Your task to perform on an android device: Search for the best selling coffee table on Crate & Barrel Image 0: 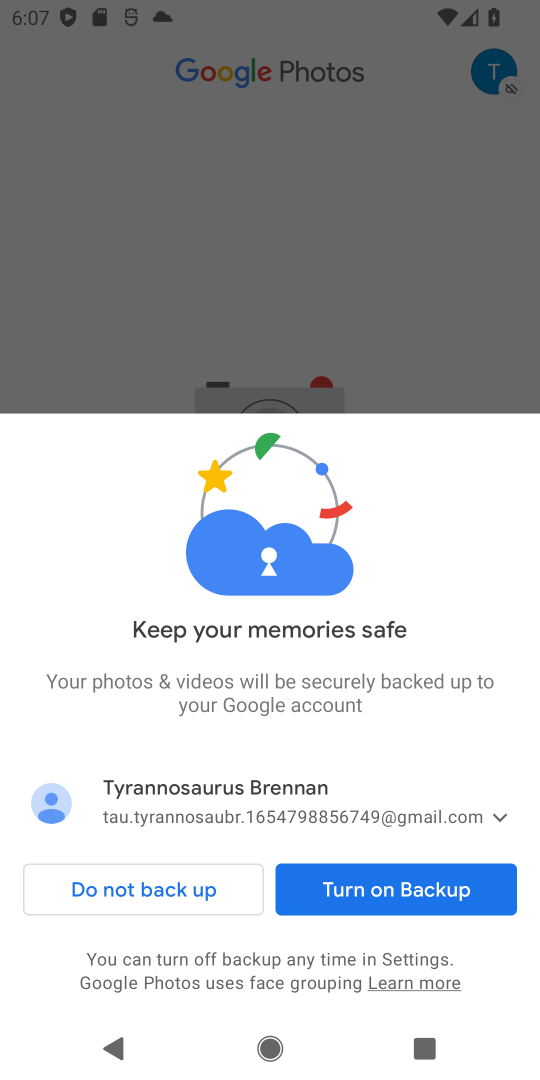
Step 0: press home button
Your task to perform on an android device: Search for the best selling coffee table on Crate & Barrel Image 1: 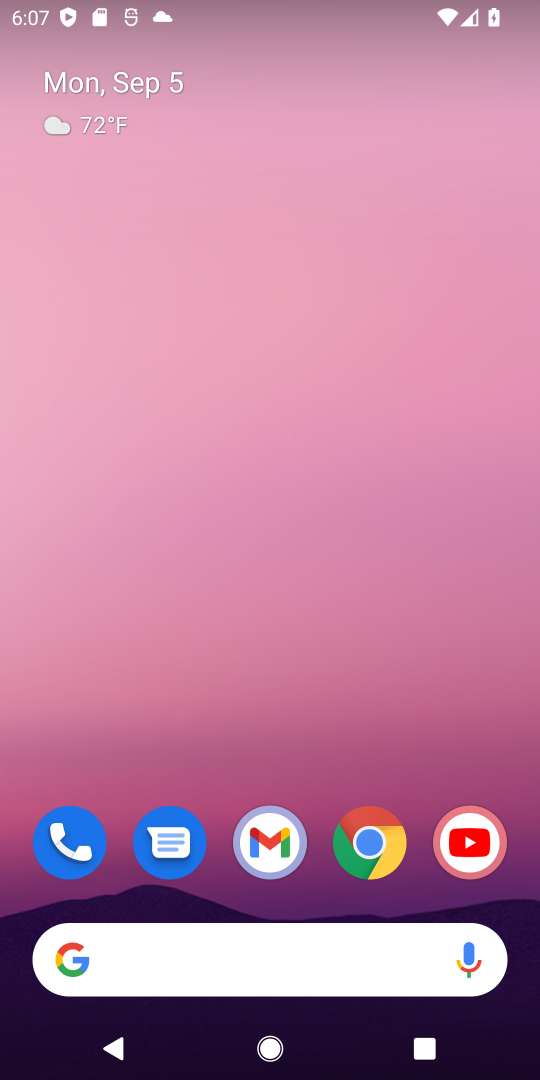
Step 1: click (365, 842)
Your task to perform on an android device: Search for the best selling coffee table on Crate & Barrel Image 2: 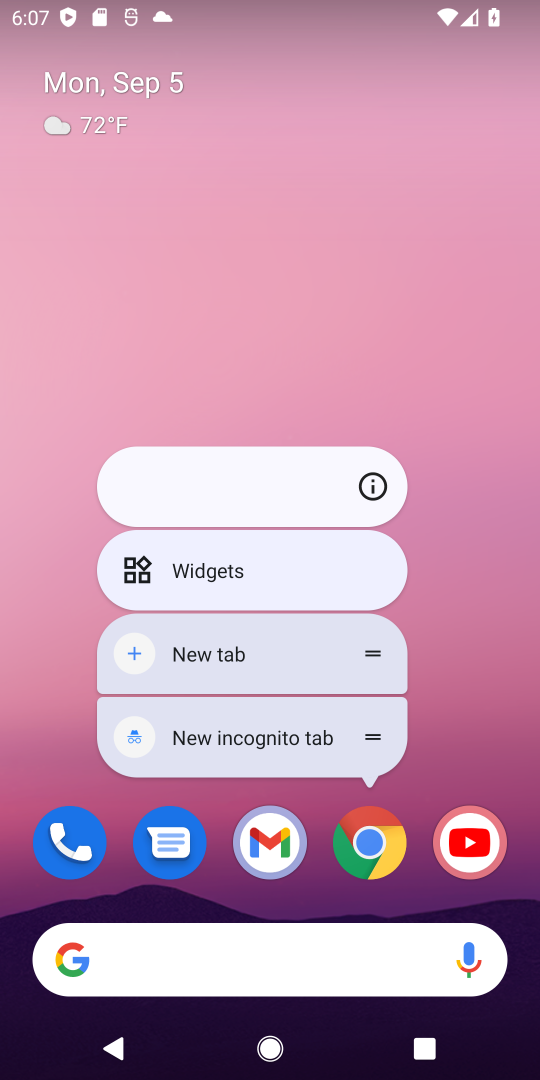
Step 2: click (369, 847)
Your task to perform on an android device: Search for the best selling coffee table on Crate & Barrel Image 3: 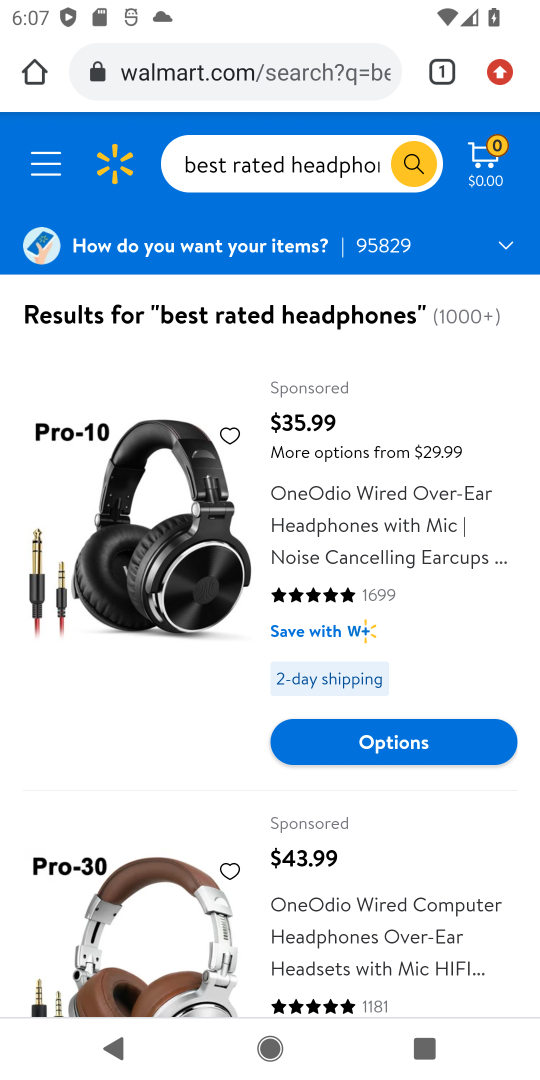
Step 3: click (363, 66)
Your task to perform on an android device: Search for the best selling coffee table on Crate & Barrel Image 4: 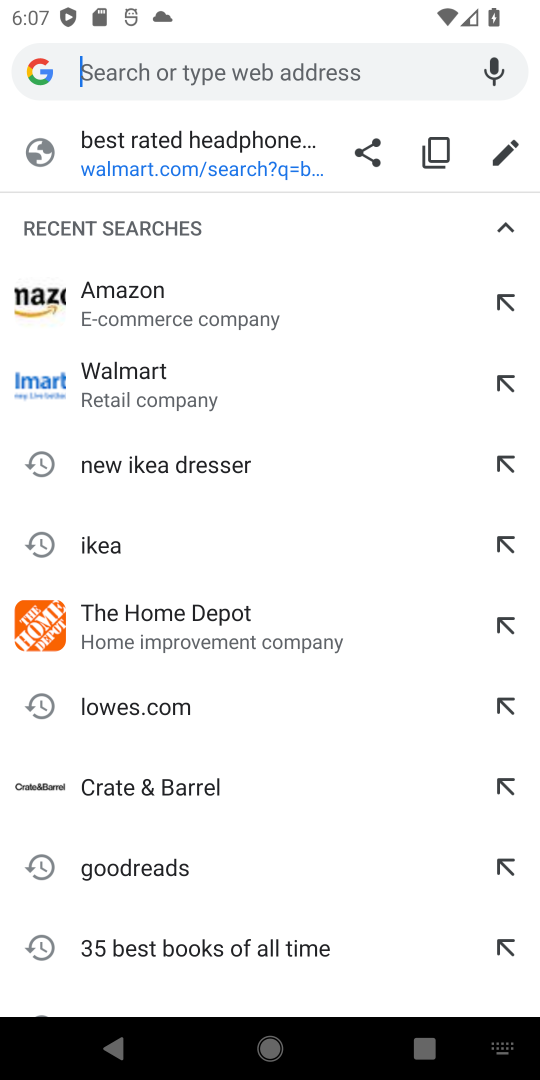
Step 4: type "Crate & Barrel"
Your task to perform on an android device: Search for the best selling coffee table on Crate & Barrel Image 5: 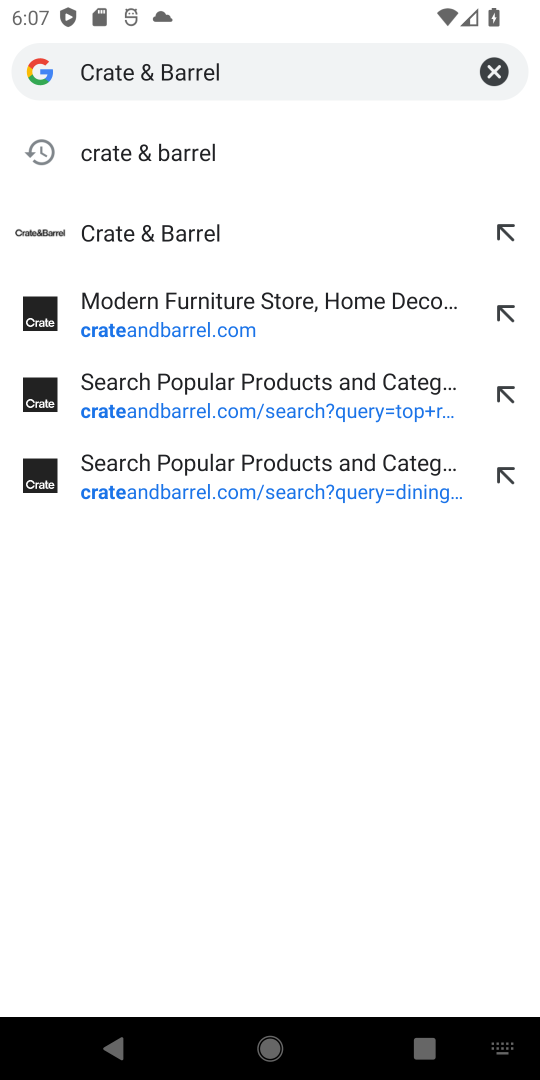
Step 5: click (160, 240)
Your task to perform on an android device: Search for the best selling coffee table on Crate & Barrel Image 6: 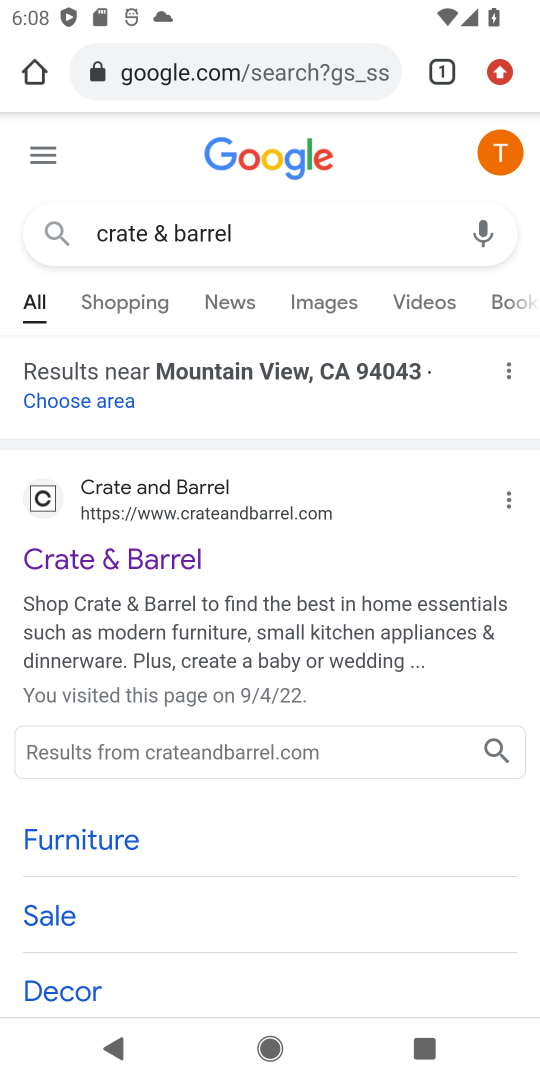
Step 6: click (196, 580)
Your task to perform on an android device: Search for the best selling coffee table on Crate & Barrel Image 7: 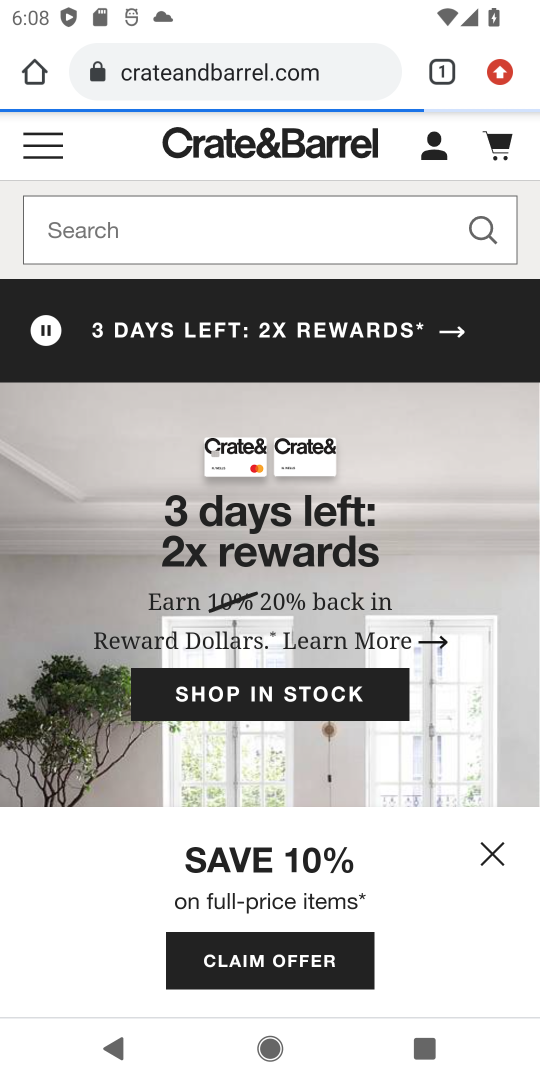
Step 7: click (243, 238)
Your task to perform on an android device: Search for the best selling coffee table on Crate & Barrel Image 8: 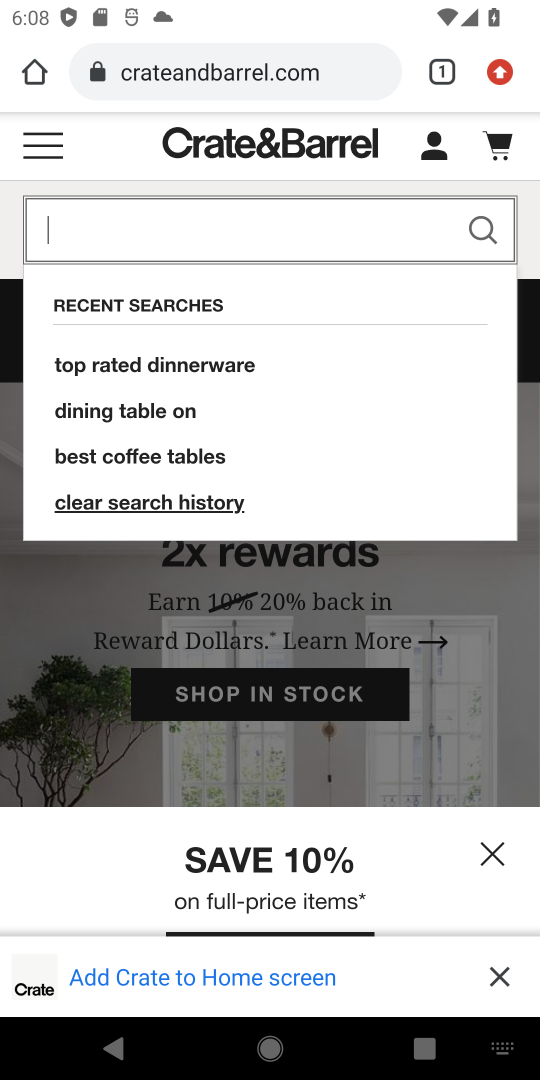
Step 8: click (278, 220)
Your task to perform on an android device: Search for the best selling coffee table on Crate & Barrel Image 9: 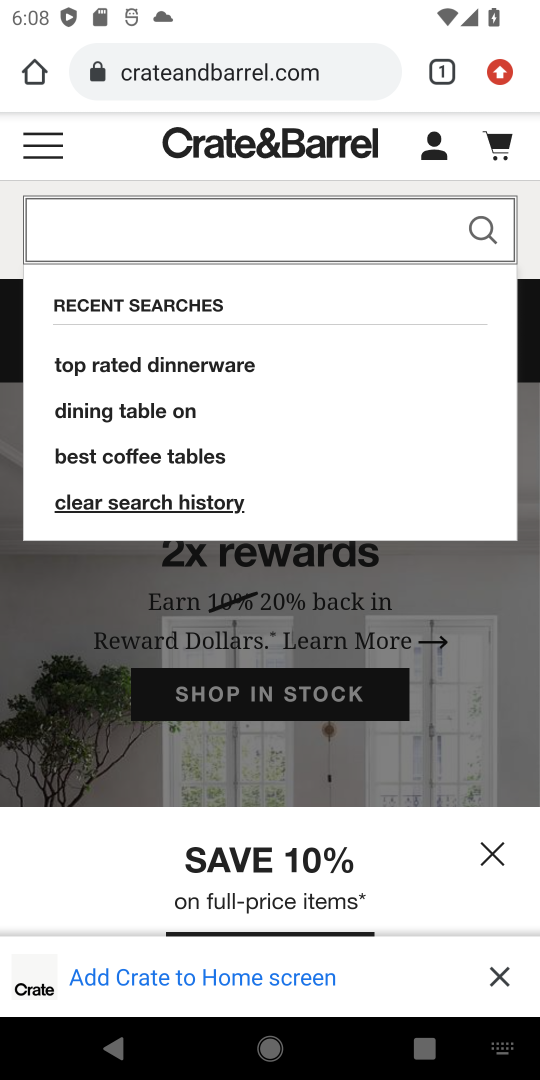
Step 9: type "best selling coffee table "
Your task to perform on an android device: Search for the best selling coffee table on Crate & Barrel Image 10: 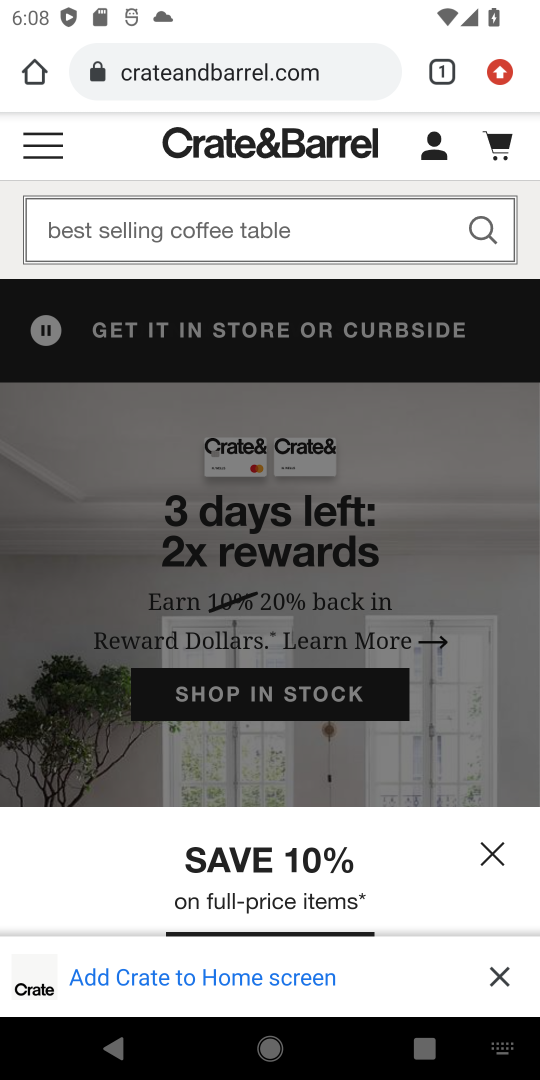
Step 10: click (475, 239)
Your task to perform on an android device: Search for the best selling coffee table on Crate & Barrel Image 11: 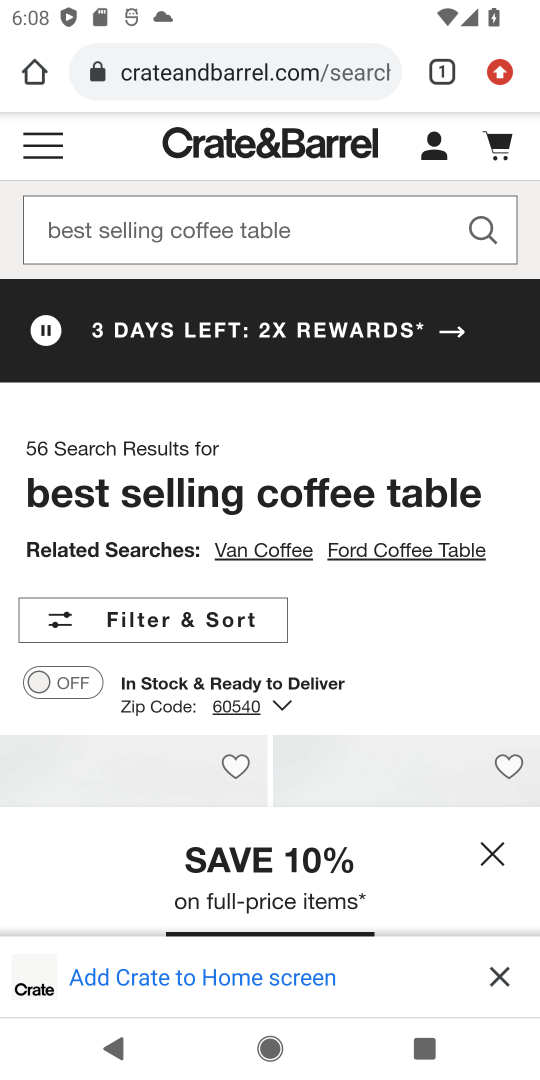
Step 11: drag from (391, 683) to (473, 445)
Your task to perform on an android device: Search for the best selling coffee table on Crate & Barrel Image 12: 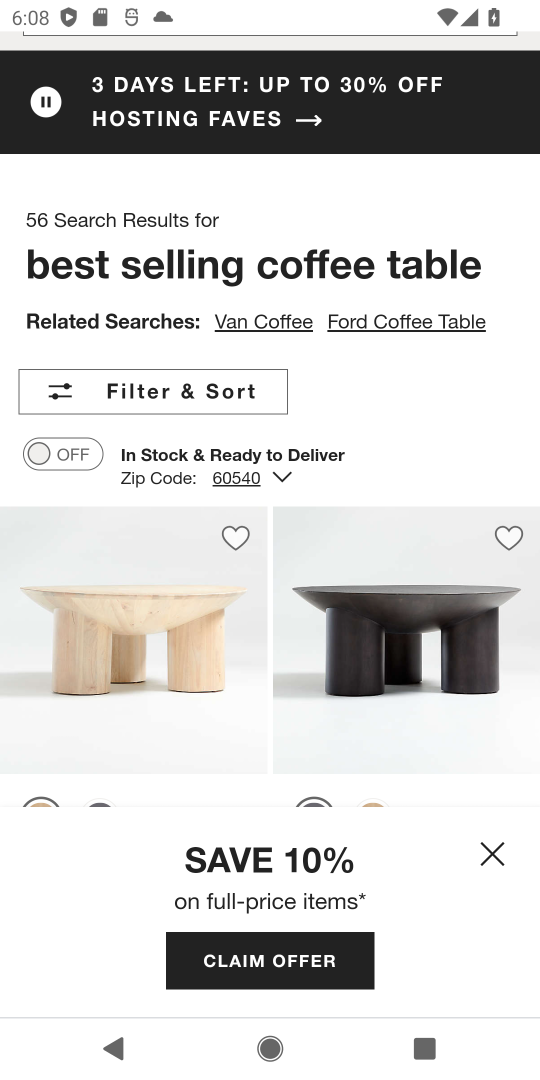
Step 12: click (501, 848)
Your task to perform on an android device: Search for the best selling coffee table on Crate & Barrel Image 13: 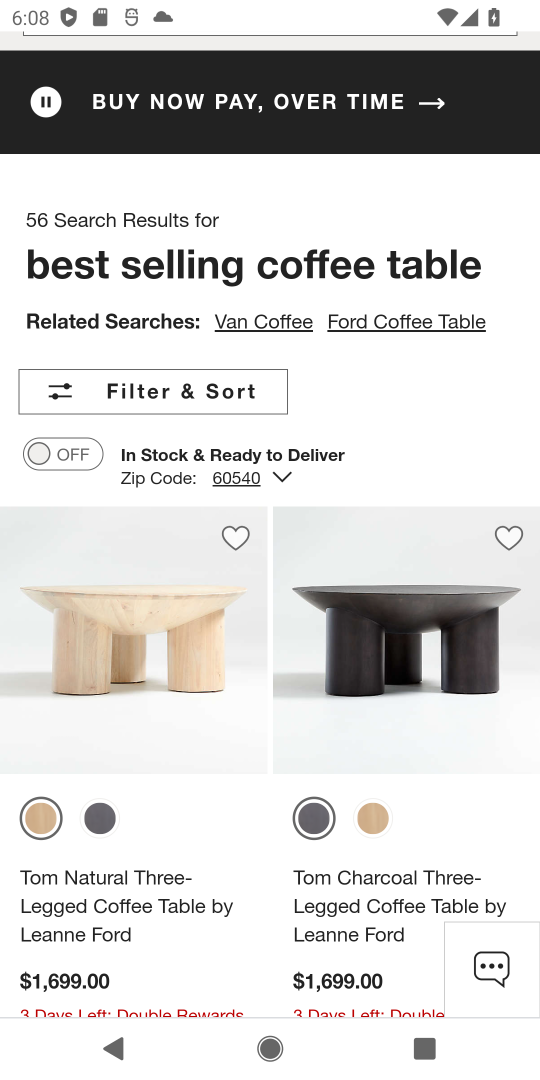
Step 13: drag from (415, 459) to (511, 277)
Your task to perform on an android device: Search for the best selling coffee table on Crate & Barrel Image 14: 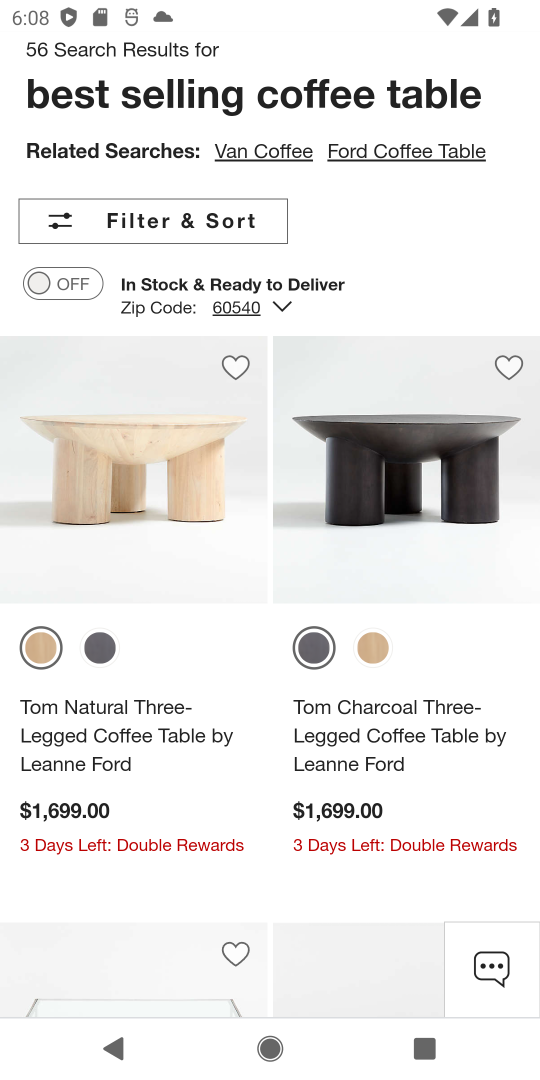
Step 14: click (491, 161)
Your task to perform on an android device: Search for the best selling coffee table on Crate & Barrel Image 15: 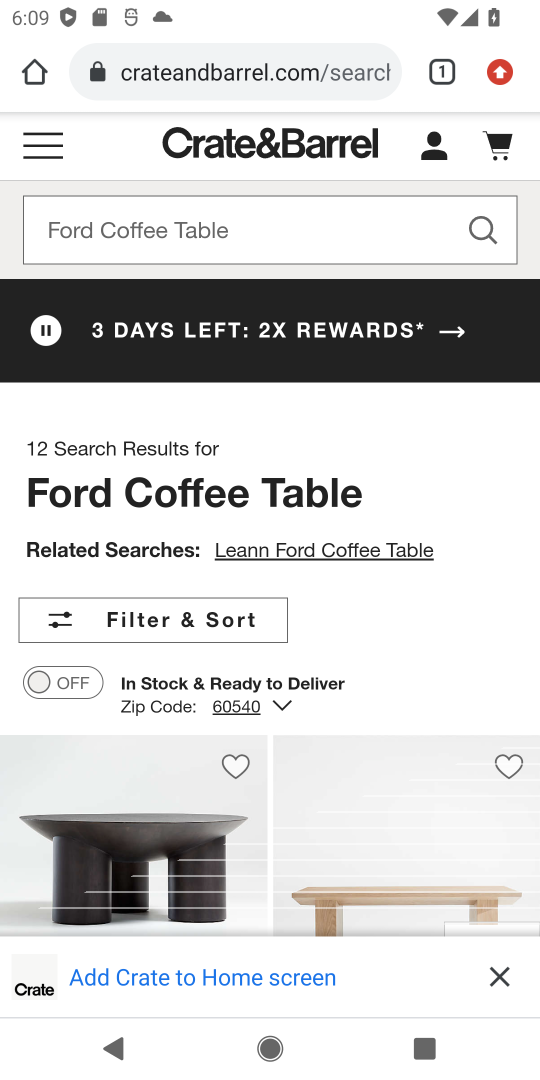
Step 15: task complete